Your task to perform on an android device: Open the Play Movies app and select the watchlist tab. Image 0: 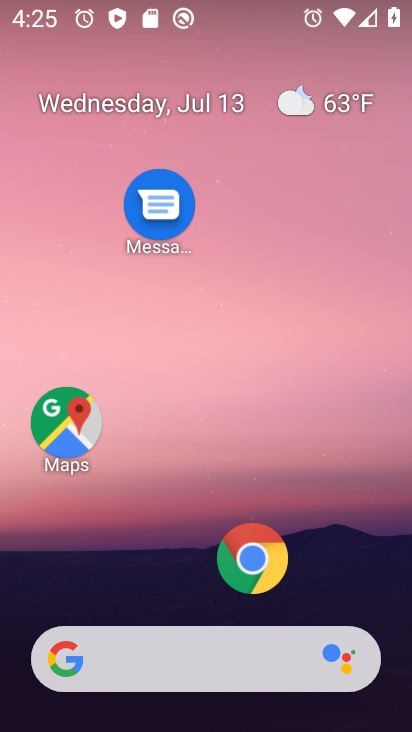
Step 0: drag from (199, 640) to (174, 161)
Your task to perform on an android device: Open the Play Movies app and select the watchlist tab. Image 1: 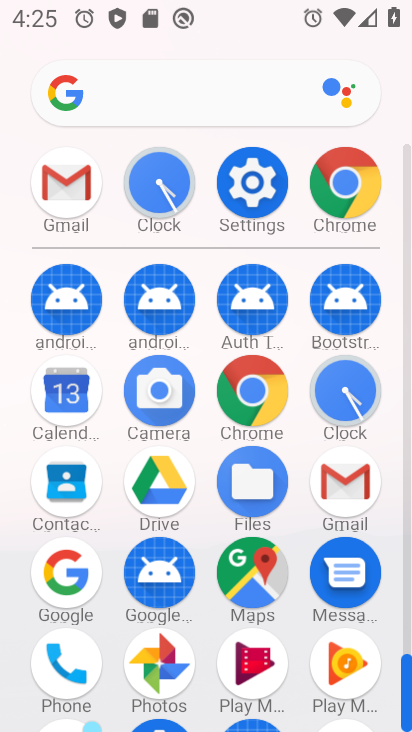
Step 1: click (261, 672)
Your task to perform on an android device: Open the Play Movies app and select the watchlist tab. Image 2: 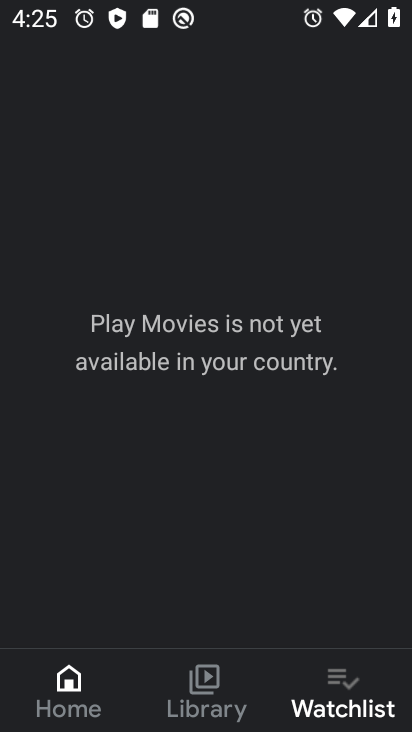
Step 2: task complete